Your task to perform on an android device: turn on bluetooth scan Image 0: 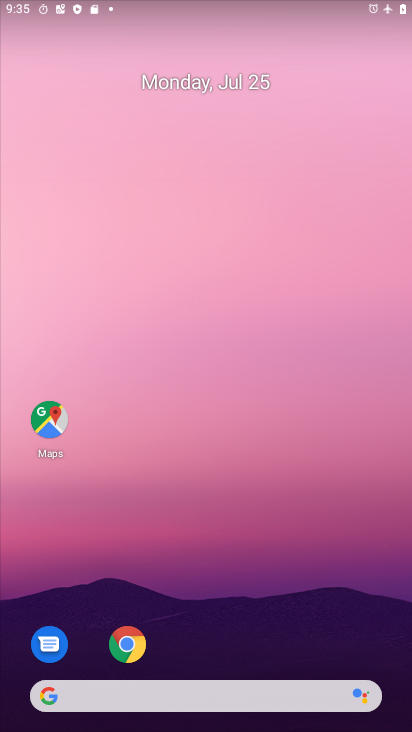
Step 0: drag from (303, 634) to (141, 164)
Your task to perform on an android device: turn on bluetooth scan Image 1: 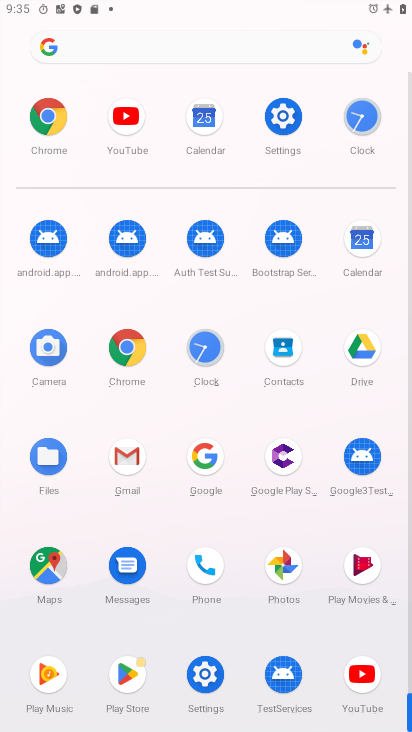
Step 1: click (186, 680)
Your task to perform on an android device: turn on bluetooth scan Image 2: 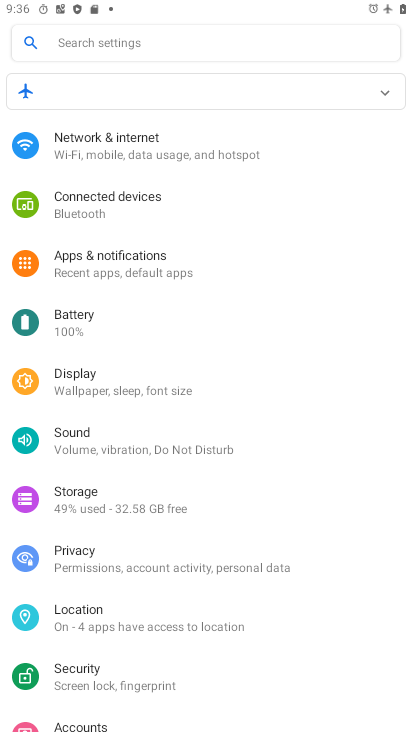
Step 2: click (131, 618)
Your task to perform on an android device: turn on bluetooth scan Image 3: 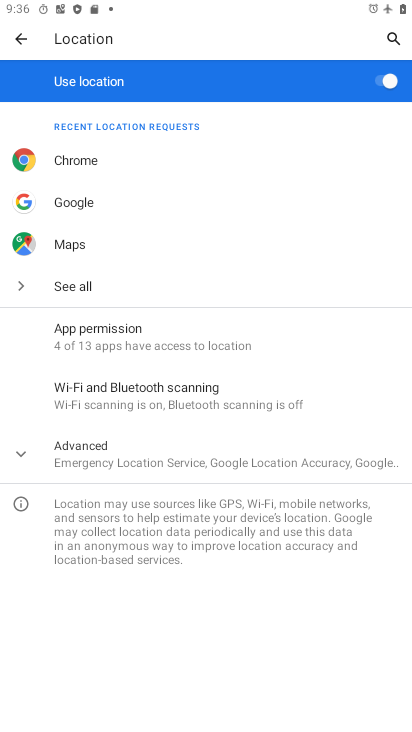
Step 3: click (70, 402)
Your task to perform on an android device: turn on bluetooth scan Image 4: 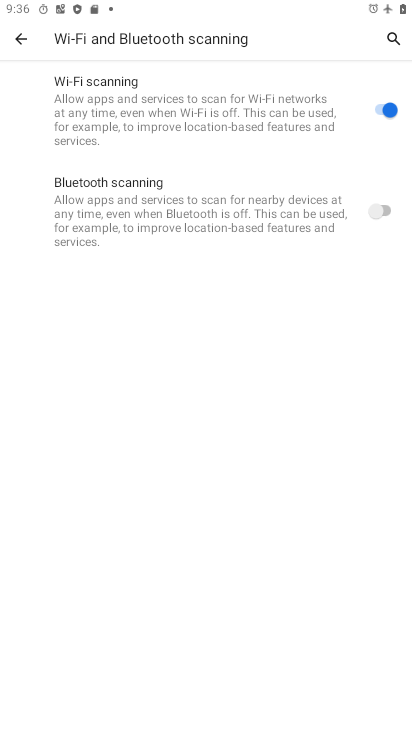
Step 4: click (347, 214)
Your task to perform on an android device: turn on bluetooth scan Image 5: 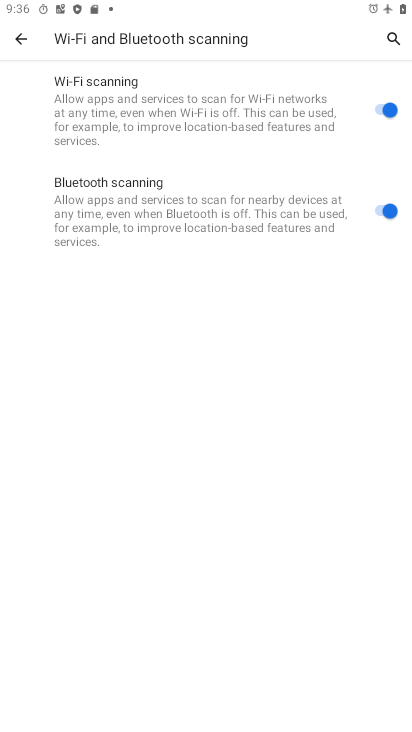
Step 5: task complete